Your task to perform on an android device: Go to accessibility settings Image 0: 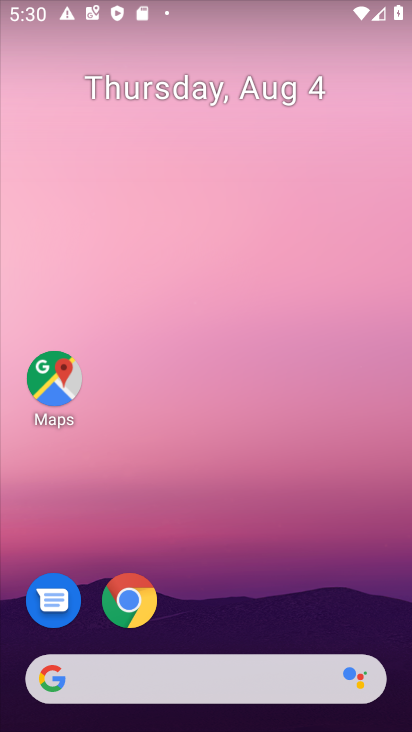
Step 0: drag from (252, 589) to (259, 26)
Your task to perform on an android device: Go to accessibility settings Image 1: 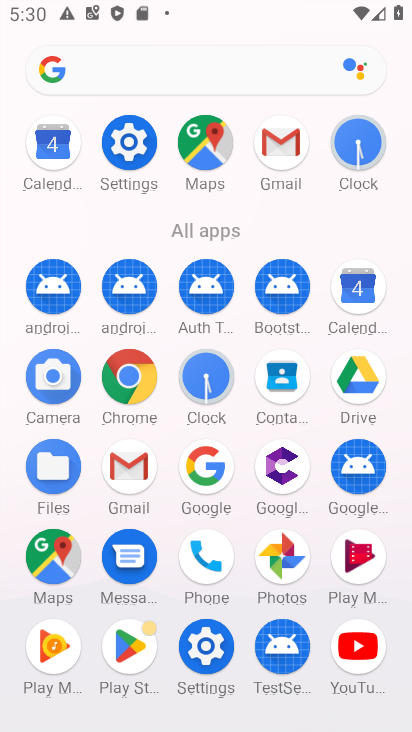
Step 1: click (136, 141)
Your task to perform on an android device: Go to accessibility settings Image 2: 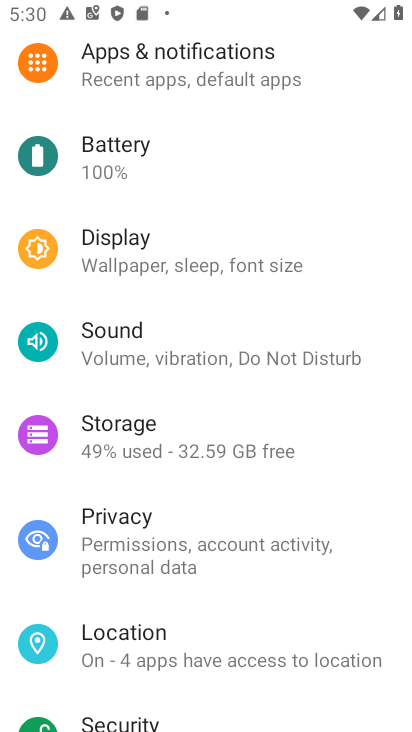
Step 2: drag from (151, 620) to (327, 39)
Your task to perform on an android device: Go to accessibility settings Image 3: 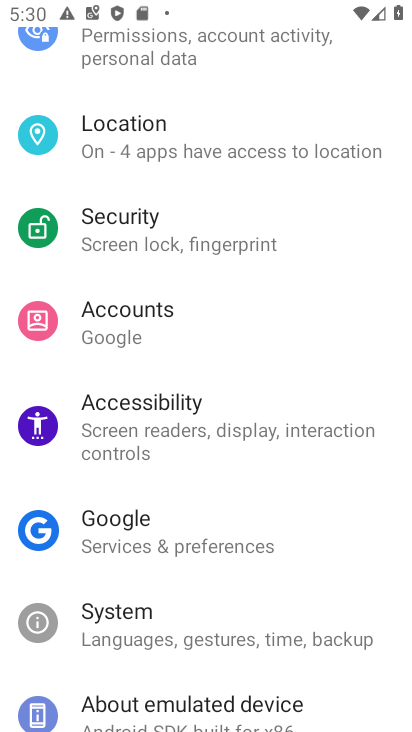
Step 3: click (200, 414)
Your task to perform on an android device: Go to accessibility settings Image 4: 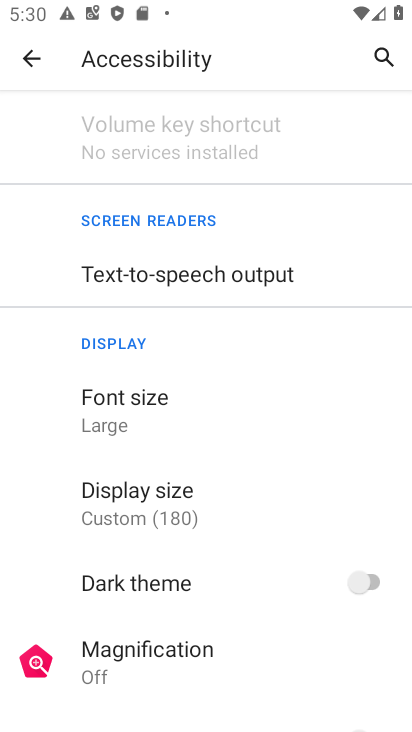
Step 4: task complete